Your task to perform on an android device: Go to Google maps Image 0: 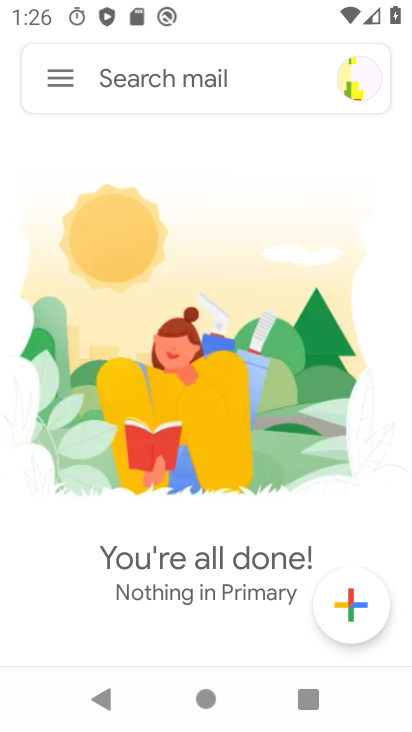
Step 0: press home button
Your task to perform on an android device: Go to Google maps Image 1: 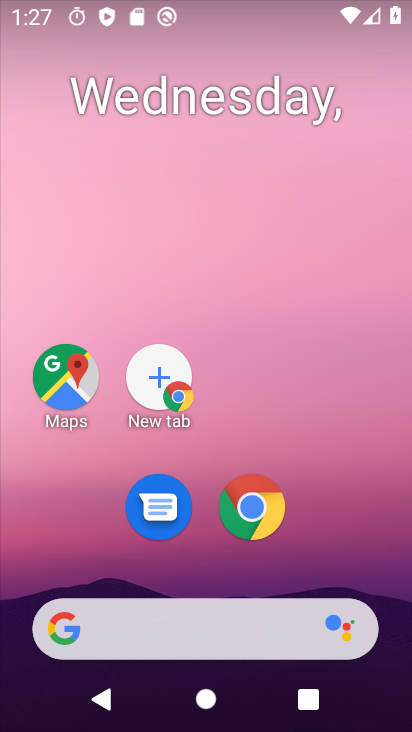
Step 1: drag from (338, 527) to (364, 87)
Your task to perform on an android device: Go to Google maps Image 2: 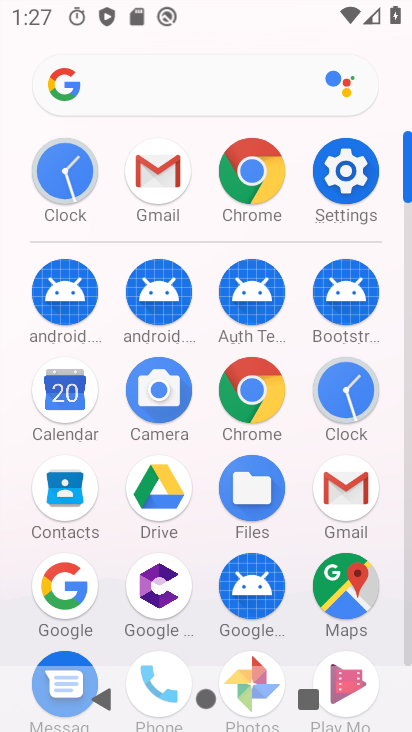
Step 2: click (335, 591)
Your task to perform on an android device: Go to Google maps Image 3: 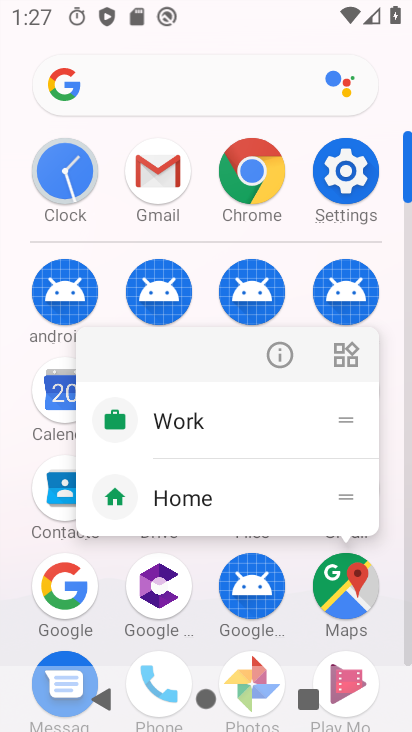
Step 3: click (336, 587)
Your task to perform on an android device: Go to Google maps Image 4: 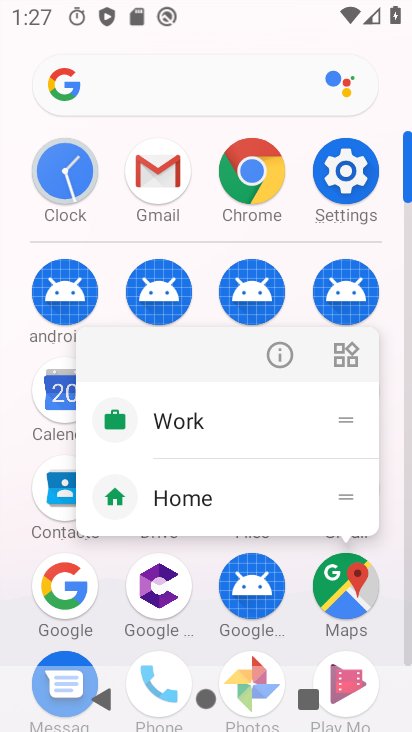
Step 4: click (342, 580)
Your task to perform on an android device: Go to Google maps Image 5: 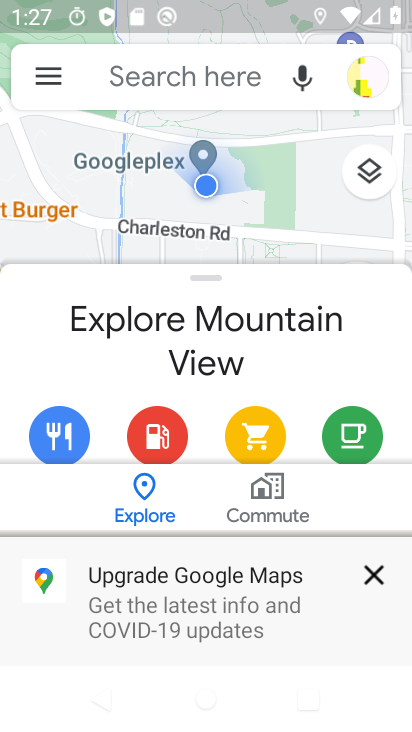
Step 5: task complete